Your task to perform on an android device: turn notification dots off Image 0: 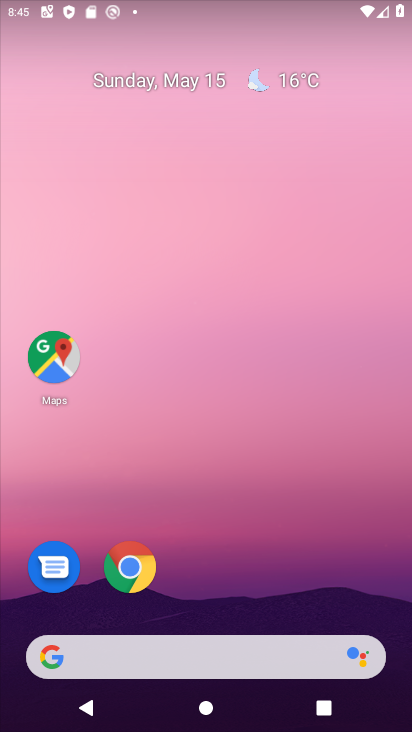
Step 0: drag from (187, 653) to (174, 191)
Your task to perform on an android device: turn notification dots off Image 1: 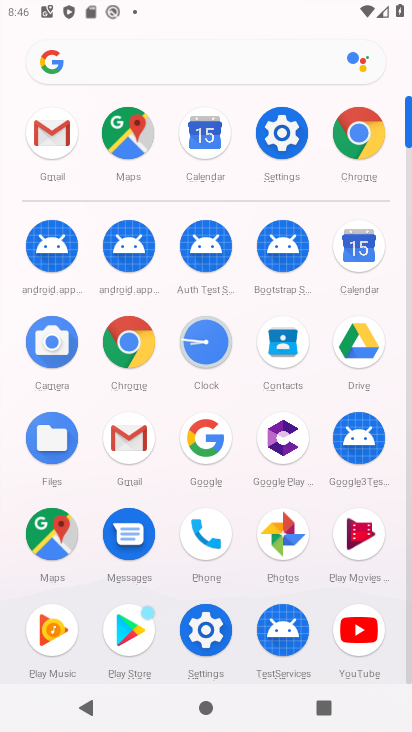
Step 1: click (201, 636)
Your task to perform on an android device: turn notification dots off Image 2: 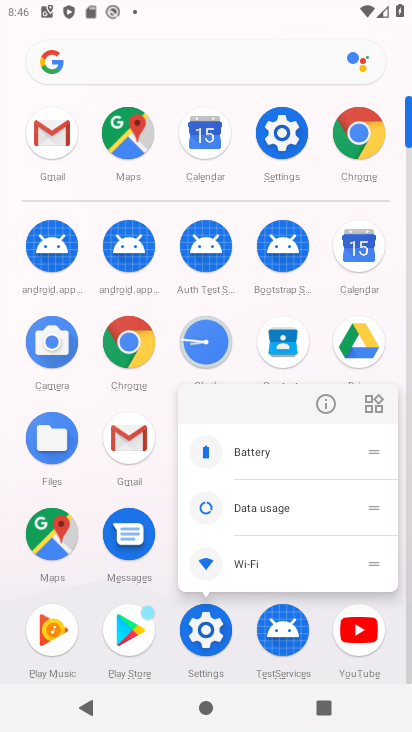
Step 2: click (206, 622)
Your task to perform on an android device: turn notification dots off Image 3: 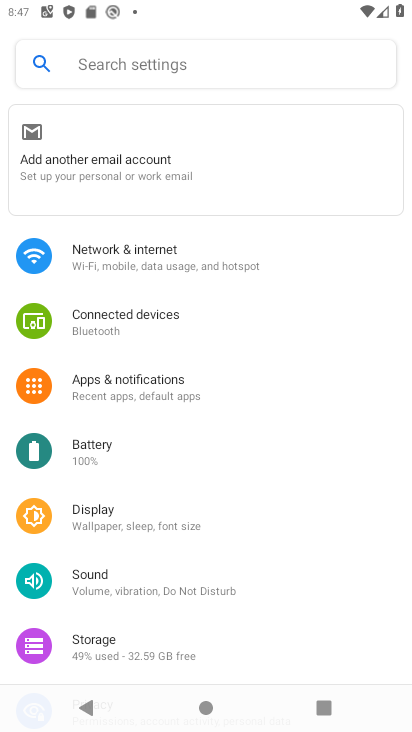
Step 3: click (151, 381)
Your task to perform on an android device: turn notification dots off Image 4: 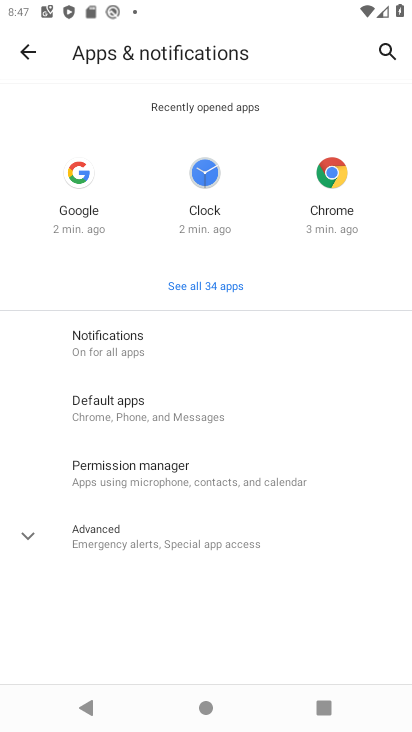
Step 4: click (106, 350)
Your task to perform on an android device: turn notification dots off Image 5: 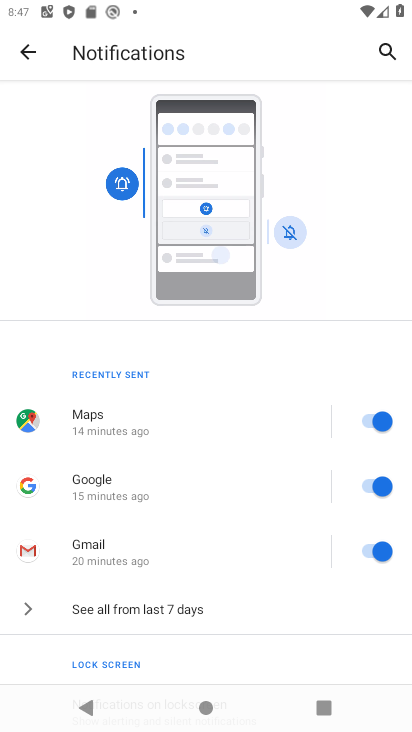
Step 5: drag from (172, 589) to (182, 120)
Your task to perform on an android device: turn notification dots off Image 6: 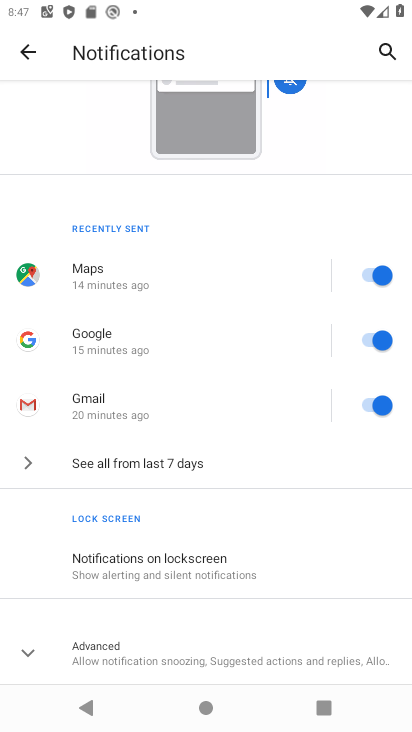
Step 6: click (148, 662)
Your task to perform on an android device: turn notification dots off Image 7: 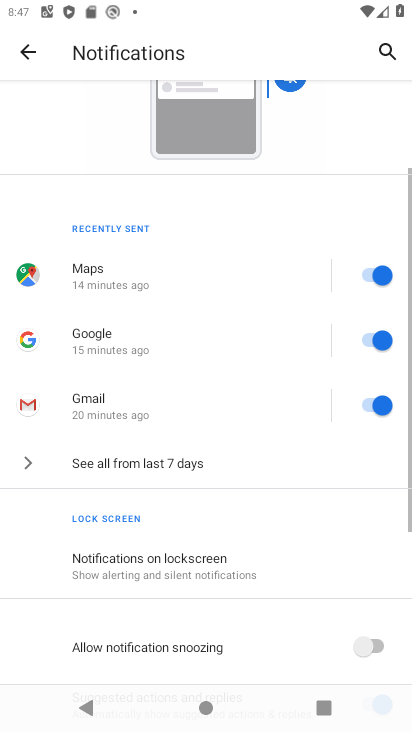
Step 7: drag from (186, 656) to (268, 8)
Your task to perform on an android device: turn notification dots off Image 8: 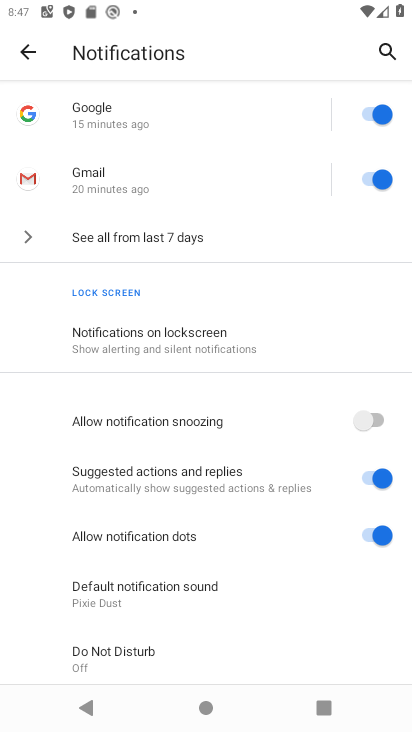
Step 8: drag from (172, 638) to (174, 377)
Your task to perform on an android device: turn notification dots off Image 9: 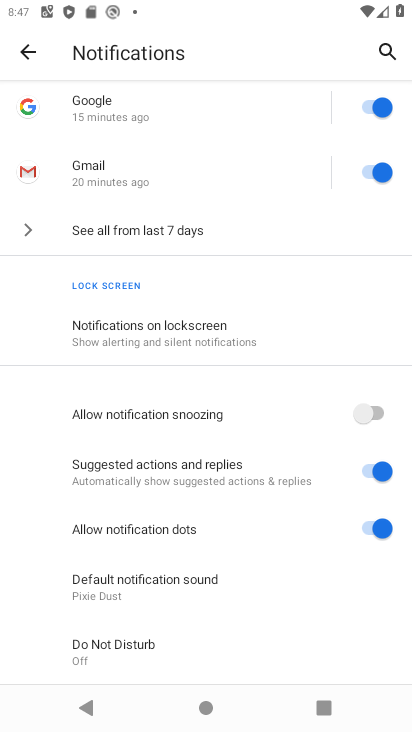
Step 9: click (384, 535)
Your task to perform on an android device: turn notification dots off Image 10: 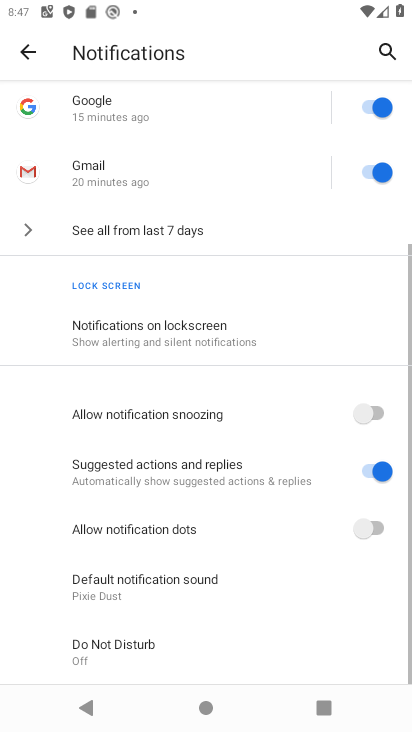
Step 10: task complete